Your task to perform on an android device: Open the stopwatch Image 0: 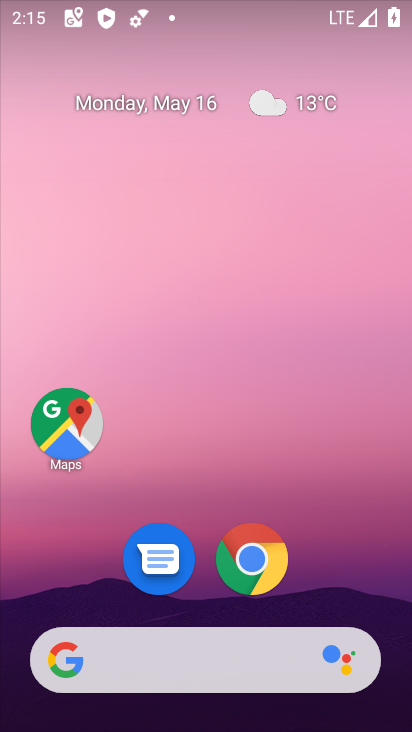
Step 0: drag from (207, 577) to (235, 139)
Your task to perform on an android device: Open the stopwatch Image 1: 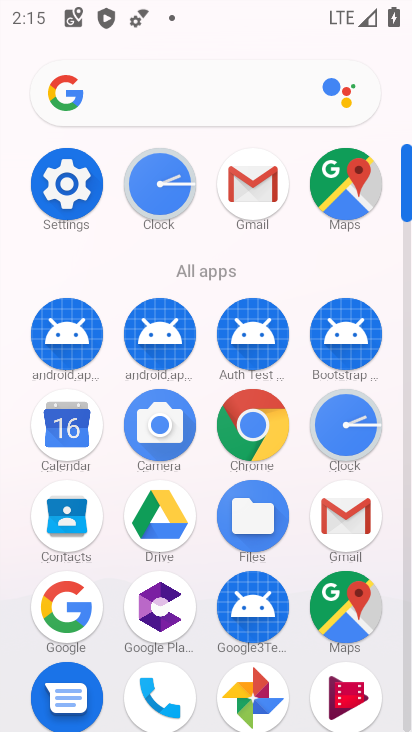
Step 1: click (357, 436)
Your task to perform on an android device: Open the stopwatch Image 2: 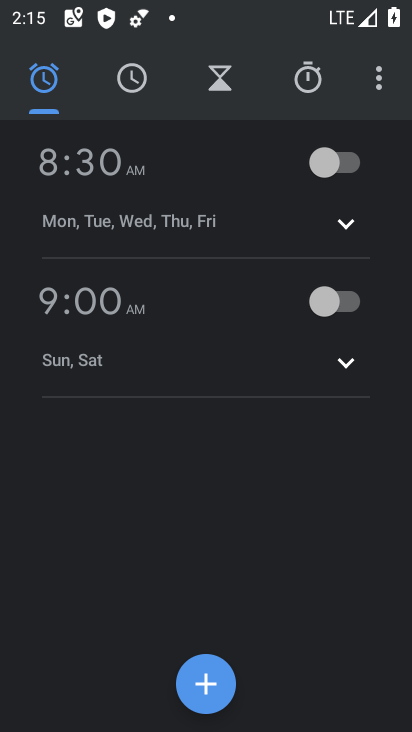
Step 2: click (298, 79)
Your task to perform on an android device: Open the stopwatch Image 3: 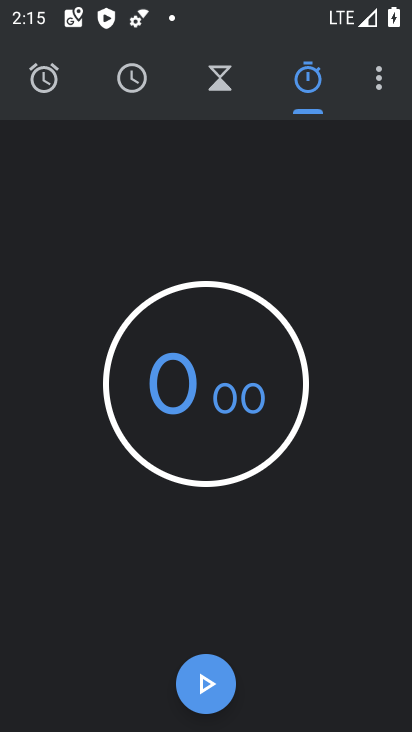
Step 3: task complete